Your task to perform on an android device: Open Google Chrome and click the shortcut for Amazon.com Image 0: 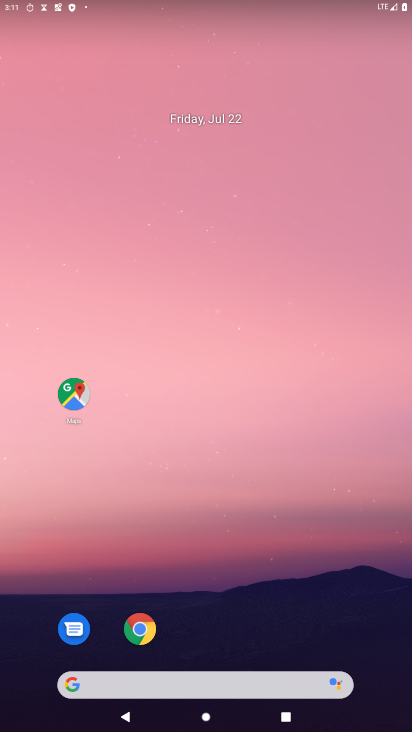
Step 0: drag from (240, 696) to (267, 9)
Your task to perform on an android device: Open Google Chrome and click the shortcut for Amazon.com Image 1: 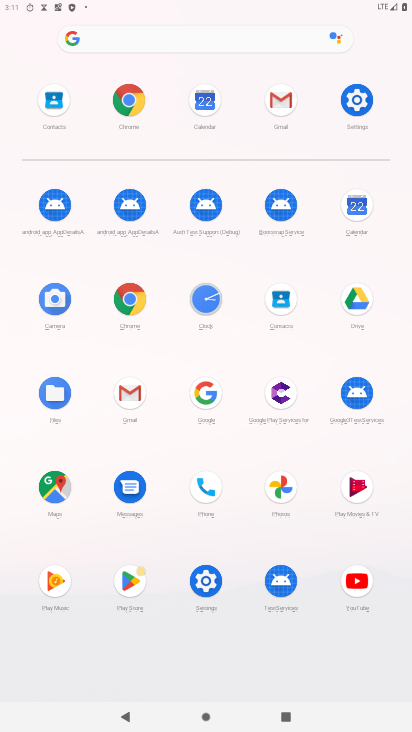
Step 1: click (134, 291)
Your task to perform on an android device: Open Google Chrome and click the shortcut for Amazon.com Image 2: 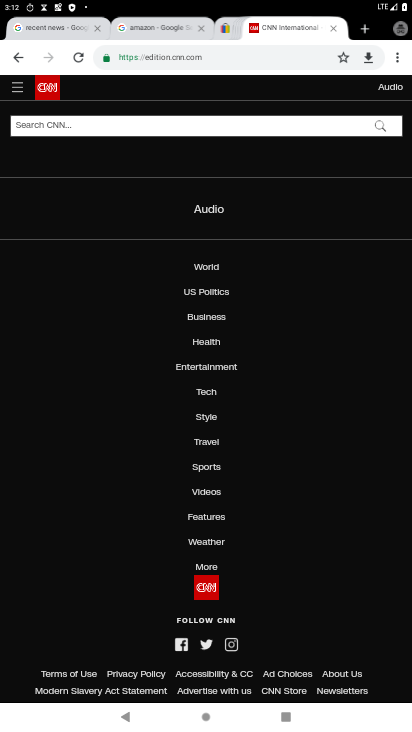
Step 2: drag from (397, 50) to (306, 59)
Your task to perform on an android device: Open Google Chrome and click the shortcut for Amazon.com Image 3: 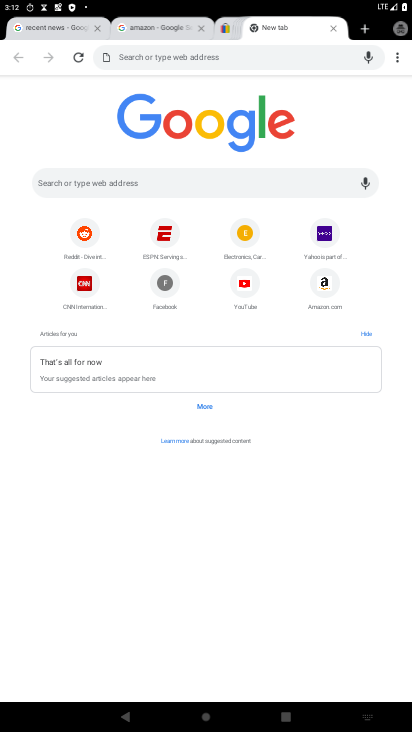
Step 3: click (322, 273)
Your task to perform on an android device: Open Google Chrome and click the shortcut for Amazon.com Image 4: 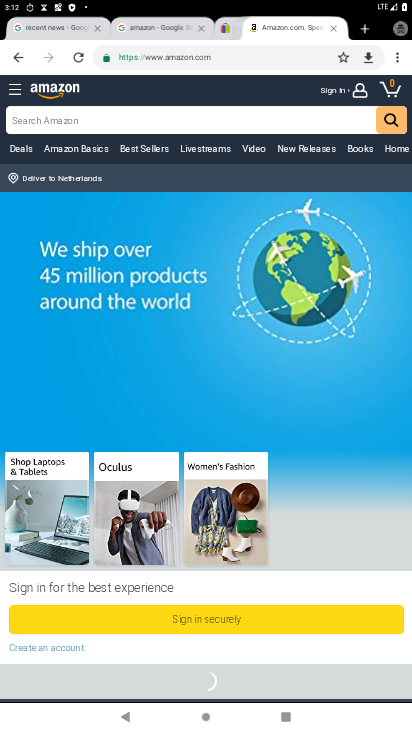
Step 4: task complete